Your task to perform on an android device: turn pop-ups off in chrome Image 0: 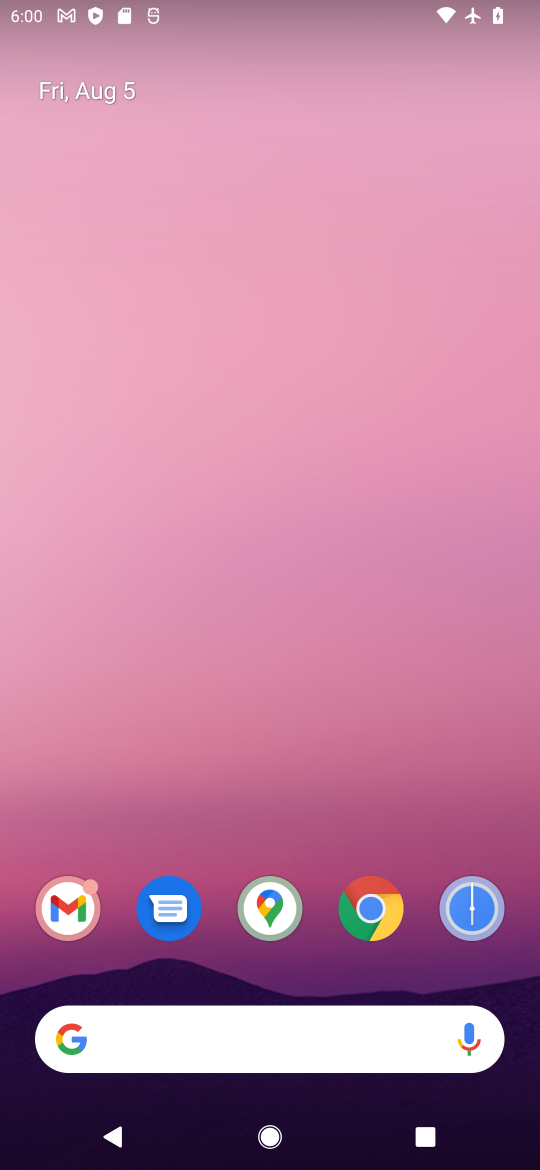
Step 0: click (362, 908)
Your task to perform on an android device: turn pop-ups off in chrome Image 1: 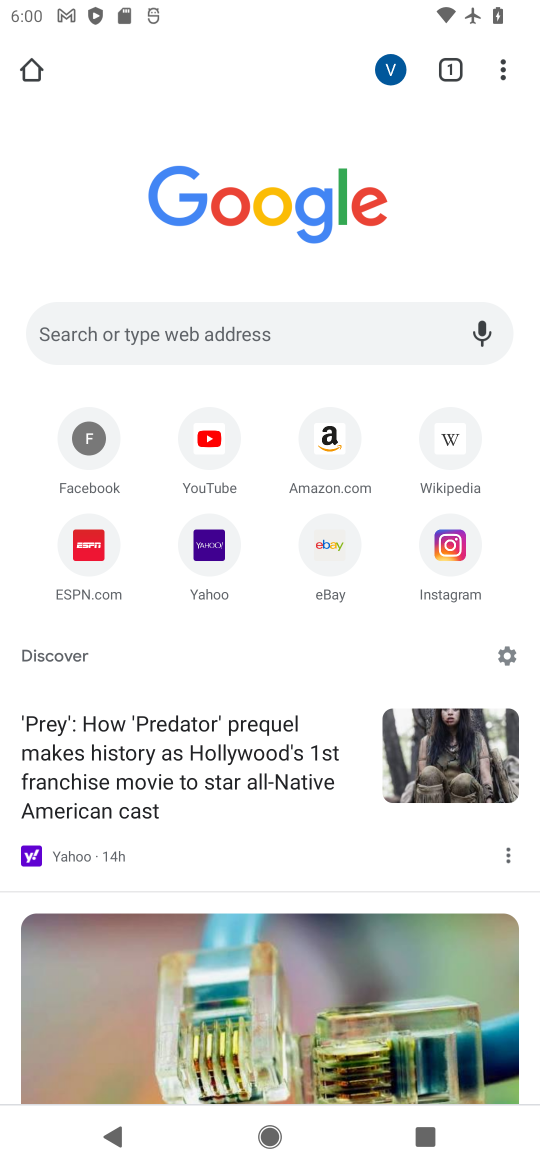
Step 1: click (504, 83)
Your task to perform on an android device: turn pop-ups off in chrome Image 2: 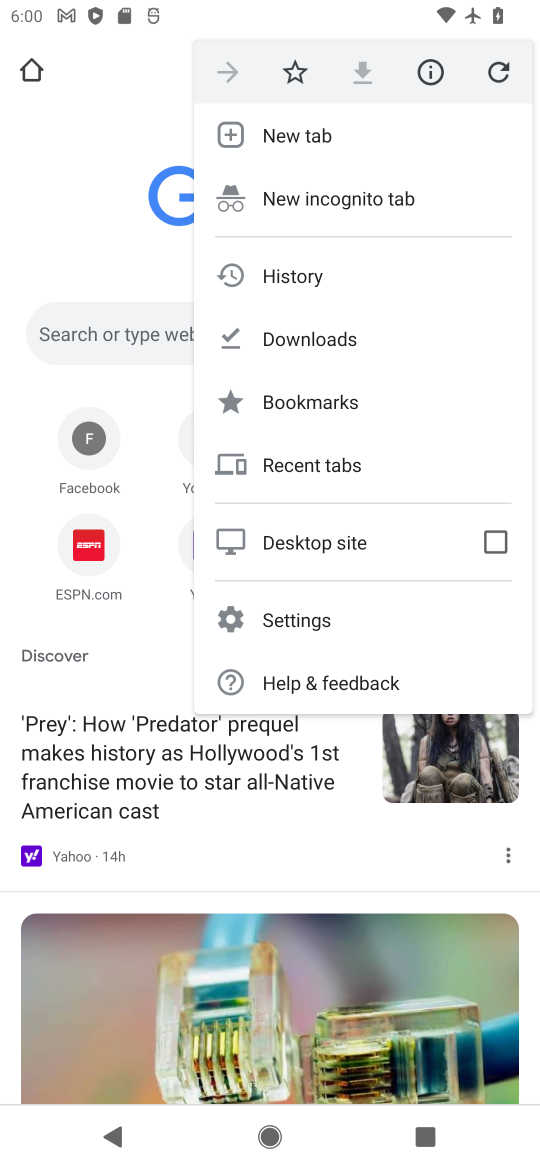
Step 2: click (263, 614)
Your task to perform on an android device: turn pop-ups off in chrome Image 3: 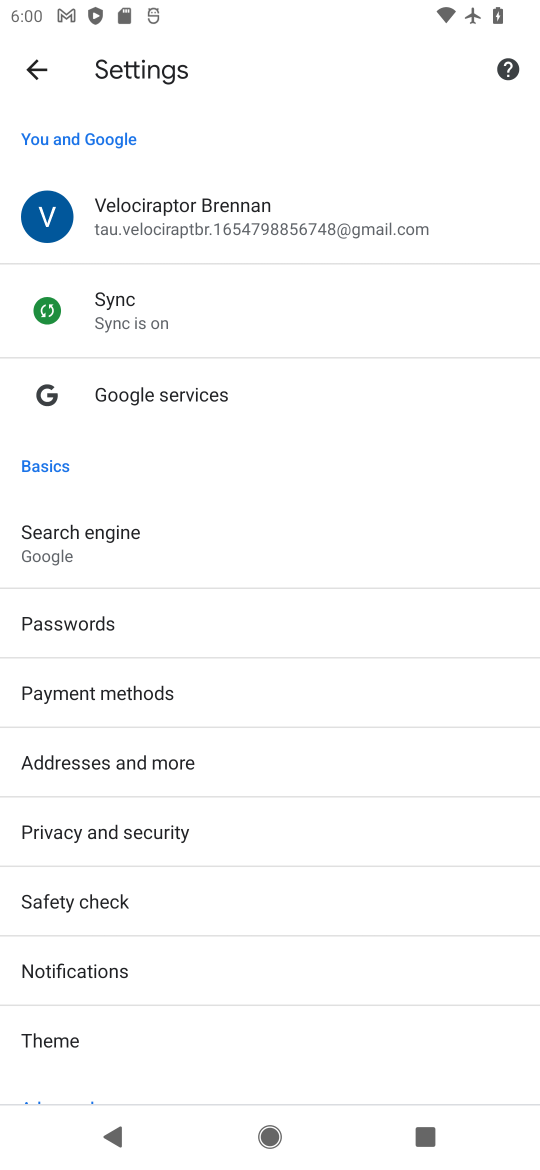
Step 3: drag from (90, 1031) to (183, 608)
Your task to perform on an android device: turn pop-ups off in chrome Image 4: 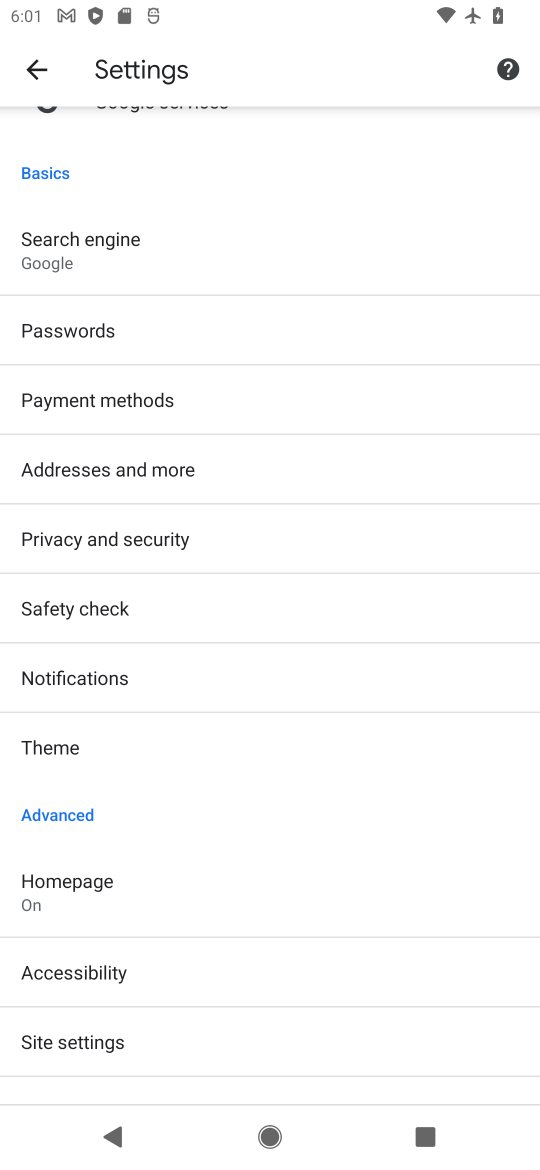
Step 4: click (63, 1037)
Your task to perform on an android device: turn pop-ups off in chrome Image 5: 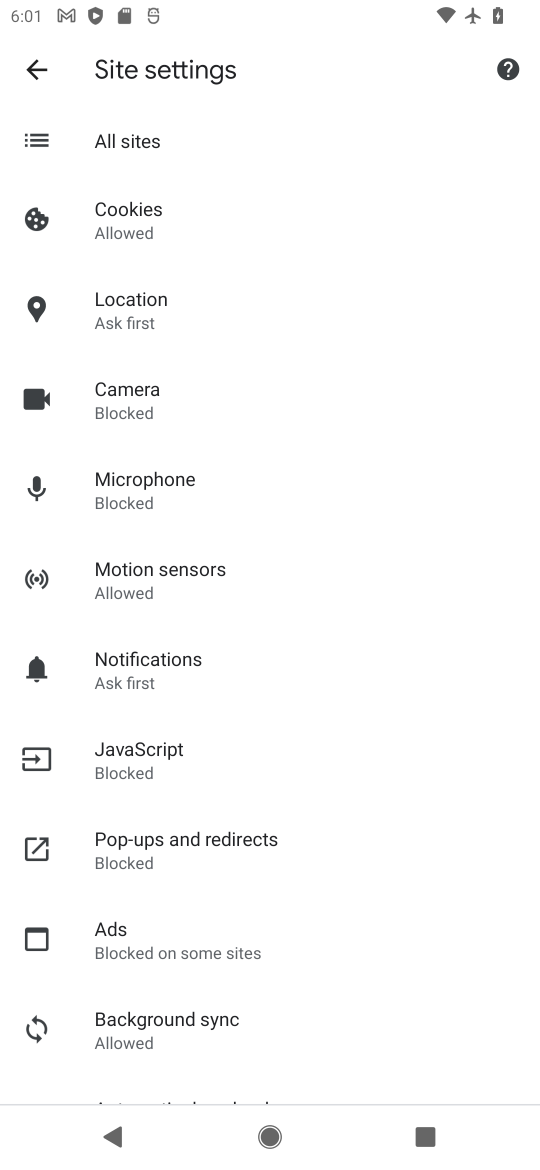
Step 5: click (143, 860)
Your task to perform on an android device: turn pop-ups off in chrome Image 6: 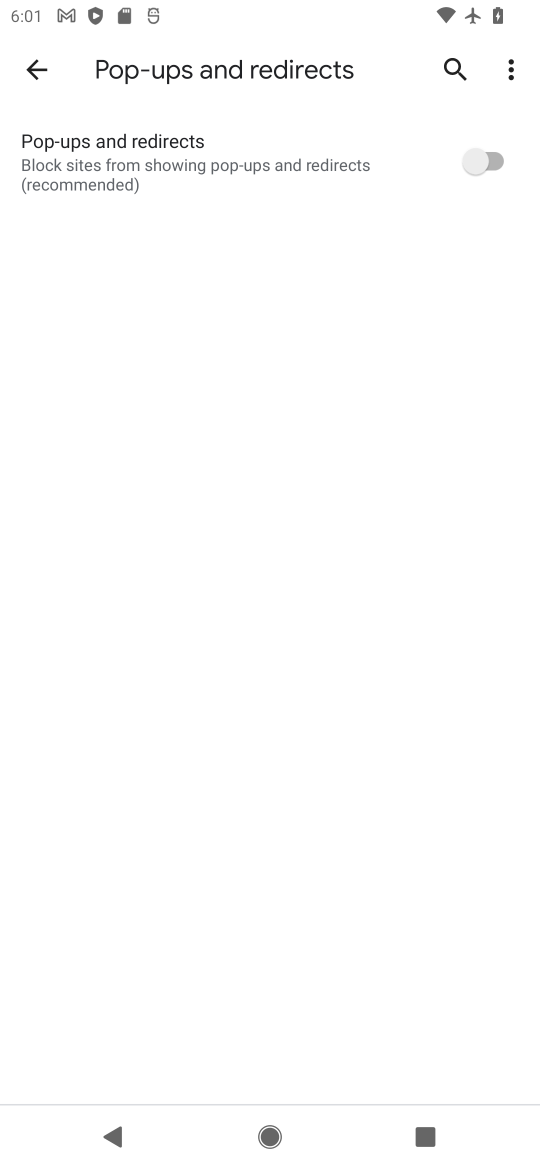
Step 6: task complete